Your task to perform on an android device: Show me the alarms in the clock app Image 0: 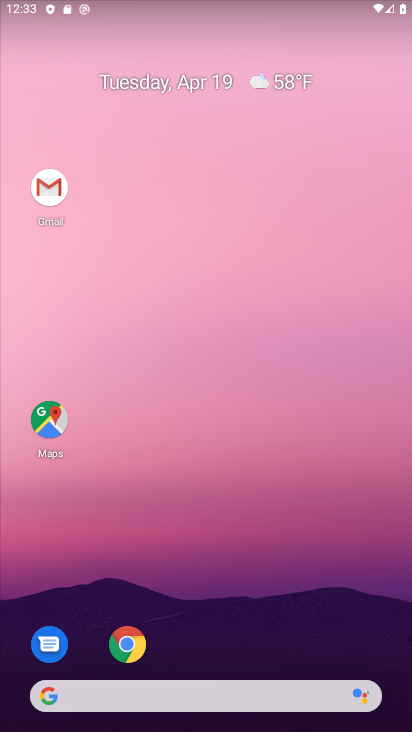
Step 0: drag from (229, 664) to (217, 173)
Your task to perform on an android device: Show me the alarms in the clock app Image 1: 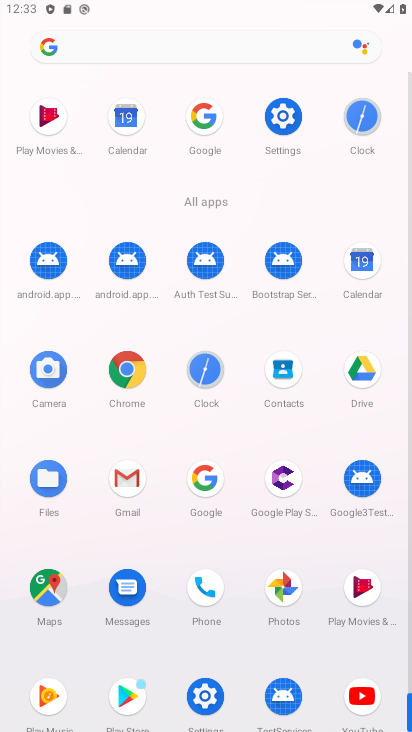
Step 1: click (363, 107)
Your task to perform on an android device: Show me the alarms in the clock app Image 2: 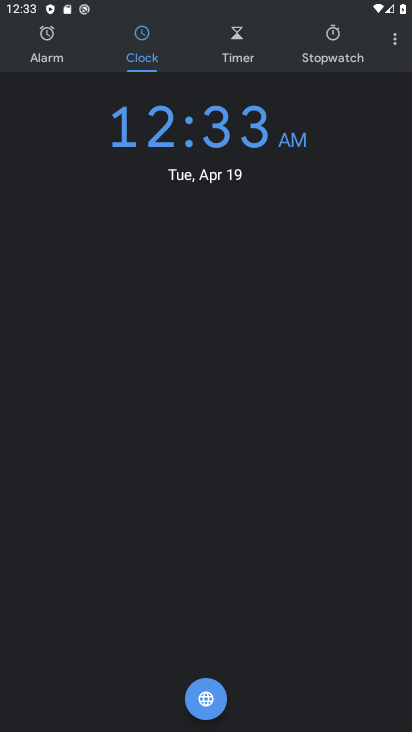
Step 2: click (50, 51)
Your task to perform on an android device: Show me the alarms in the clock app Image 3: 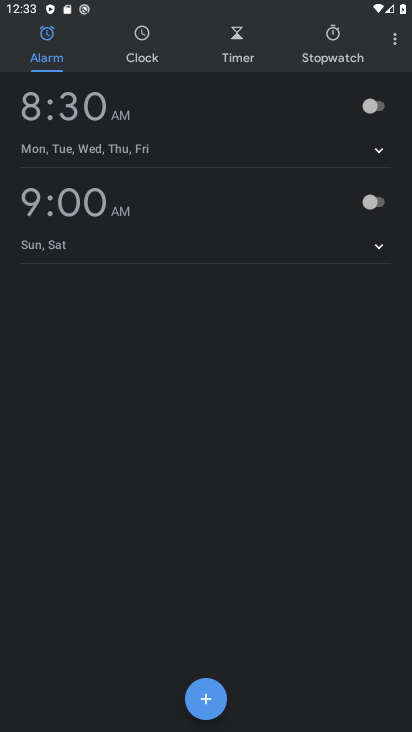
Step 3: task complete